Your task to perform on an android device: turn on showing notifications on the lock screen Image 0: 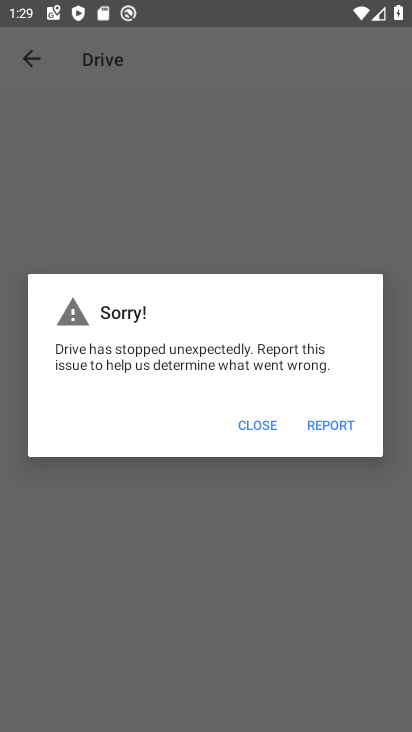
Step 0: press home button
Your task to perform on an android device: turn on showing notifications on the lock screen Image 1: 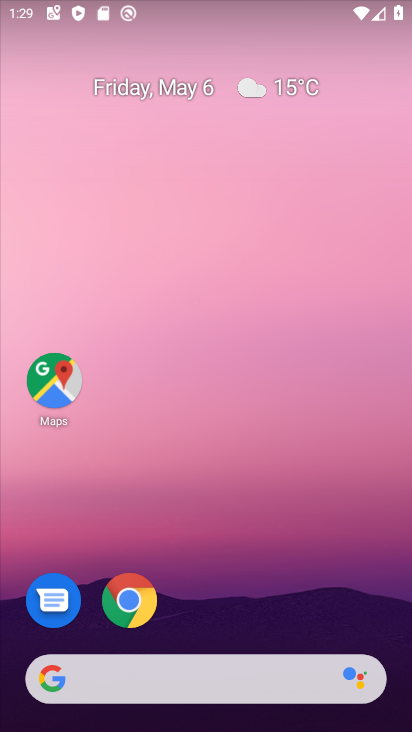
Step 1: drag from (345, 623) to (360, 75)
Your task to perform on an android device: turn on showing notifications on the lock screen Image 2: 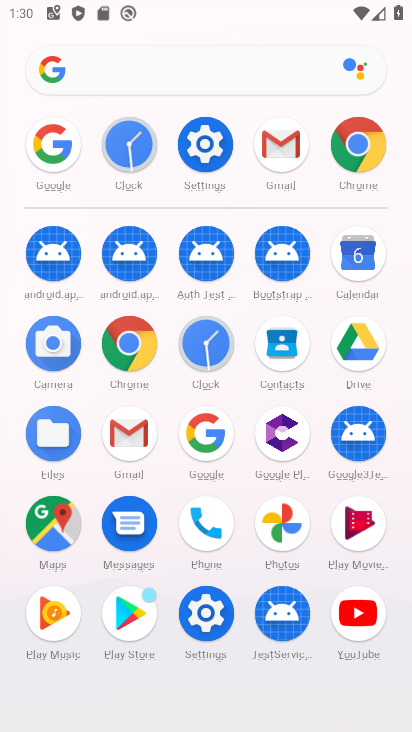
Step 2: click (218, 606)
Your task to perform on an android device: turn on showing notifications on the lock screen Image 3: 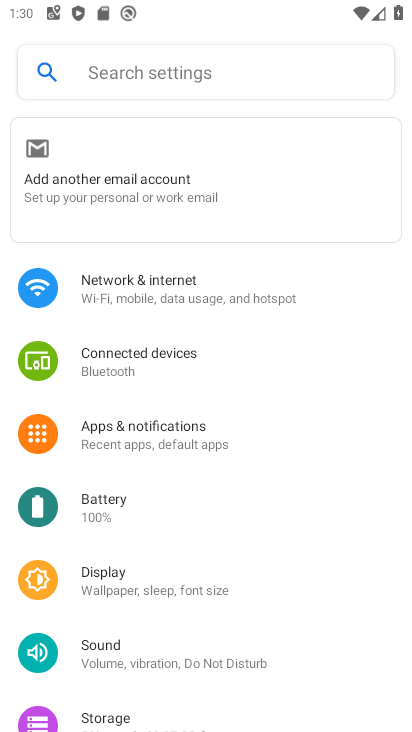
Step 3: click (240, 438)
Your task to perform on an android device: turn on showing notifications on the lock screen Image 4: 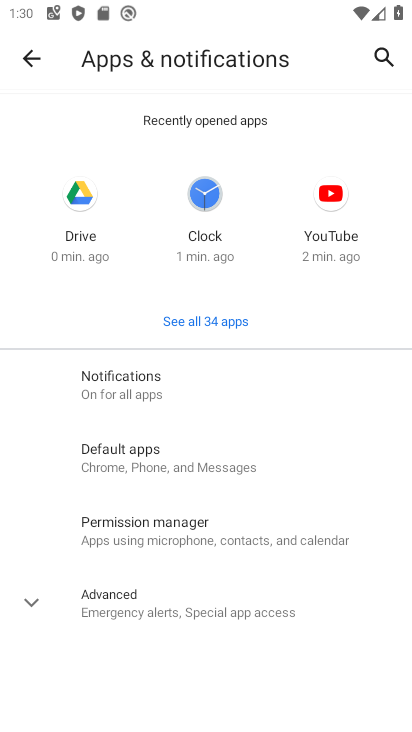
Step 4: click (194, 403)
Your task to perform on an android device: turn on showing notifications on the lock screen Image 5: 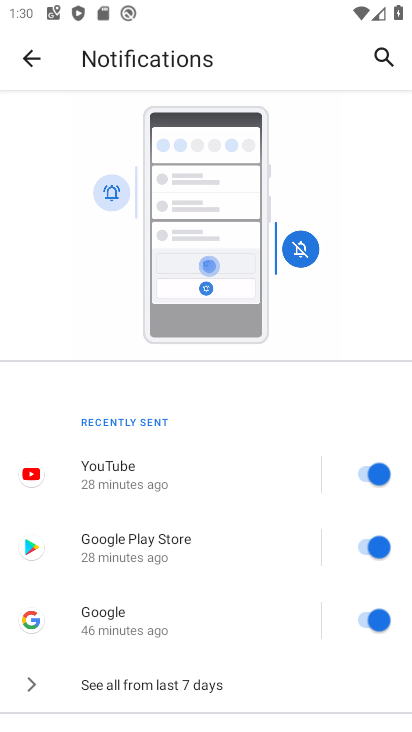
Step 5: drag from (196, 616) to (286, 190)
Your task to perform on an android device: turn on showing notifications on the lock screen Image 6: 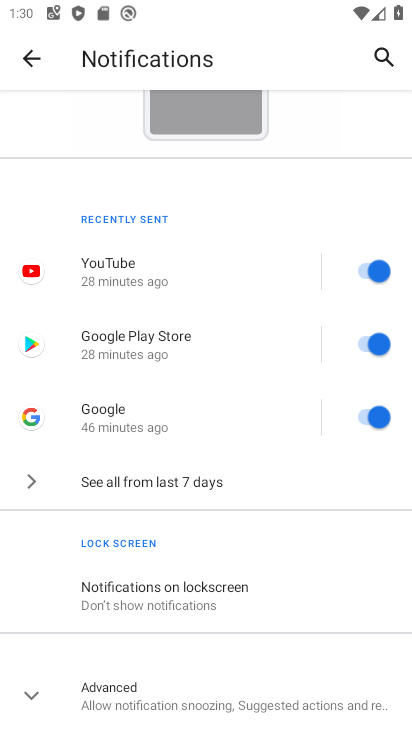
Step 6: click (198, 586)
Your task to perform on an android device: turn on showing notifications on the lock screen Image 7: 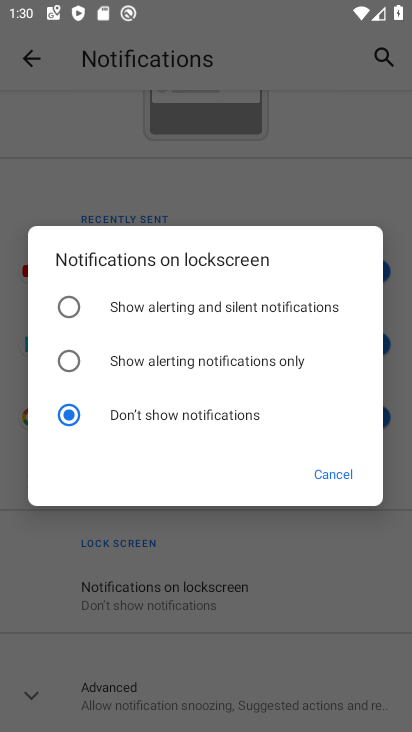
Step 7: click (68, 308)
Your task to perform on an android device: turn on showing notifications on the lock screen Image 8: 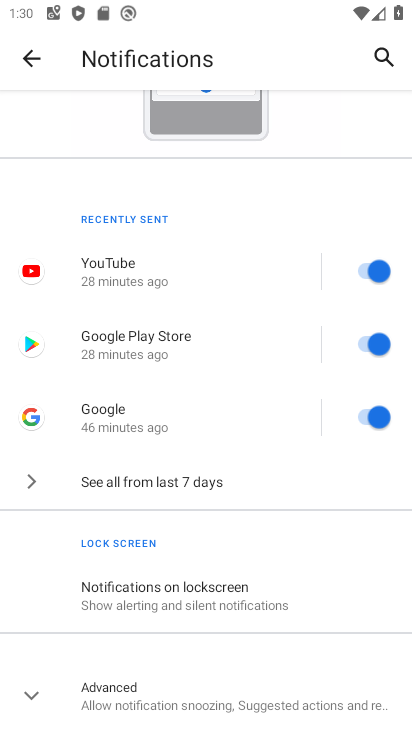
Step 8: task complete